Your task to perform on an android device: Open my contact list Image 0: 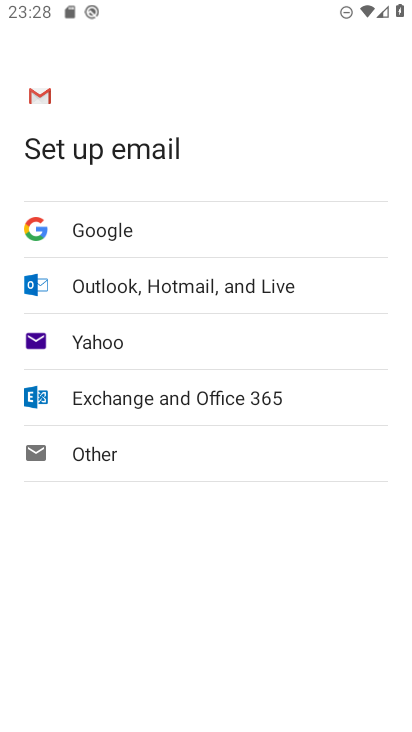
Step 0: press home button
Your task to perform on an android device: Open my contact list Image 1: 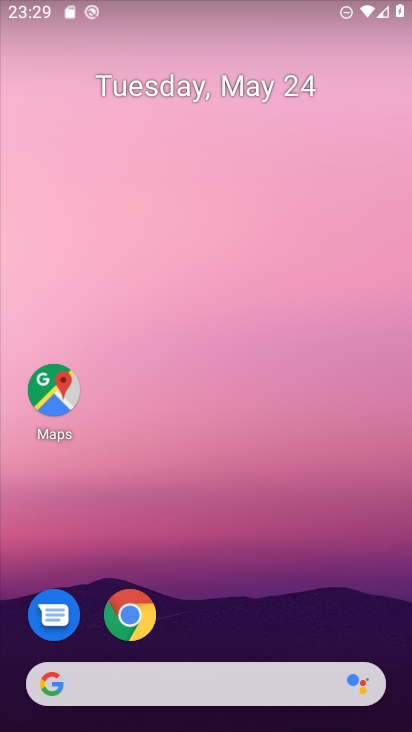
Step 1: drag from (272, 714) to (367, 145)
Your task to perform on an android device: Open my contact list Image 2: 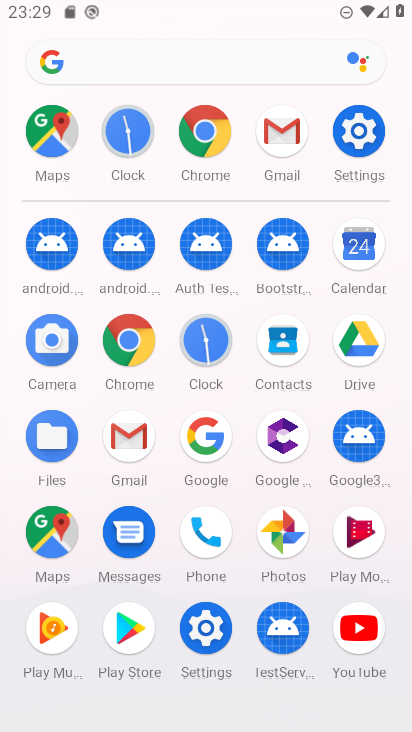
Step 2: click (196, 530)
Your task to perform on an android device: Open my contact list Image 3: 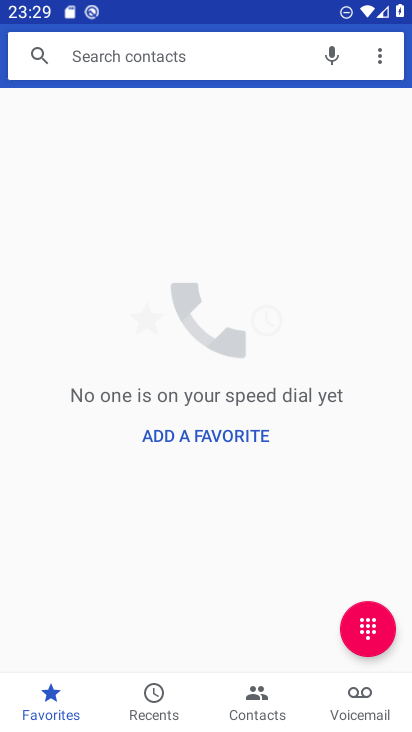
Step 3: click (254, 701)
Your task to perform on an android device: Open my contact list Image 4: 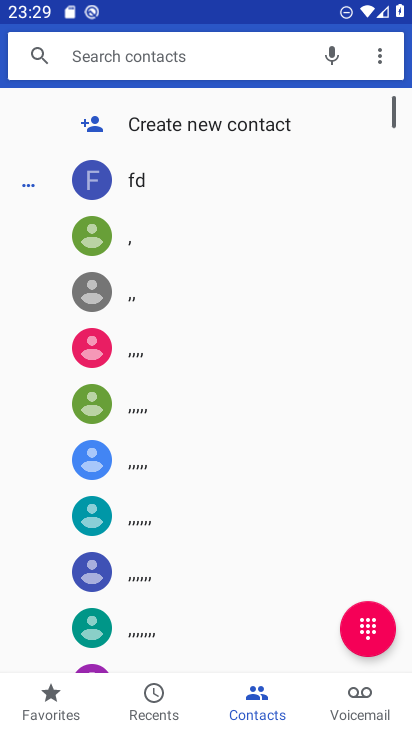
Step 4: click (213, 129)
Your task to perform on an android device: Open my contact list Image 5: 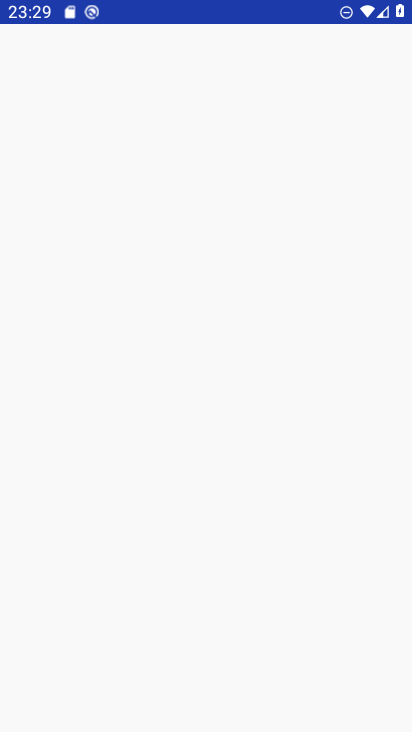
Step 5: click (175, 298)
Your task to perform on an android device: Open my contact list Image 6: 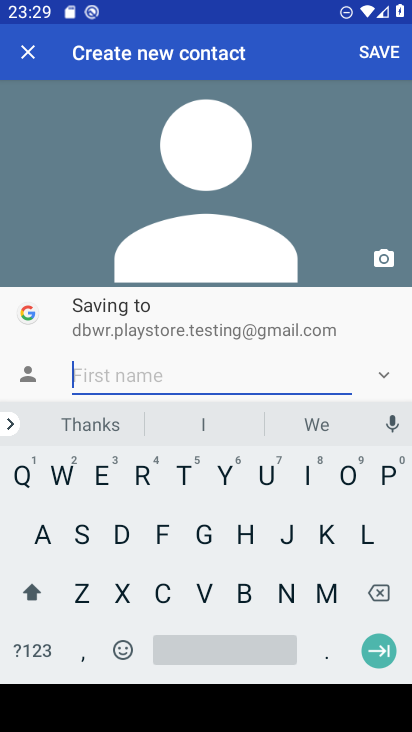
Step 6: click (188, 475)
Your task to perform on an android device: Open my contact list Image 7: 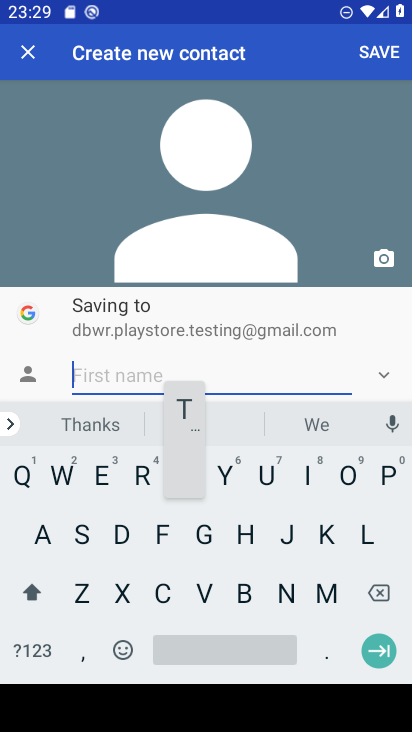
Step 7: drag from (92, 507) to (157, 482)
Your task to perform on an android device: Open my contact list Image 8: 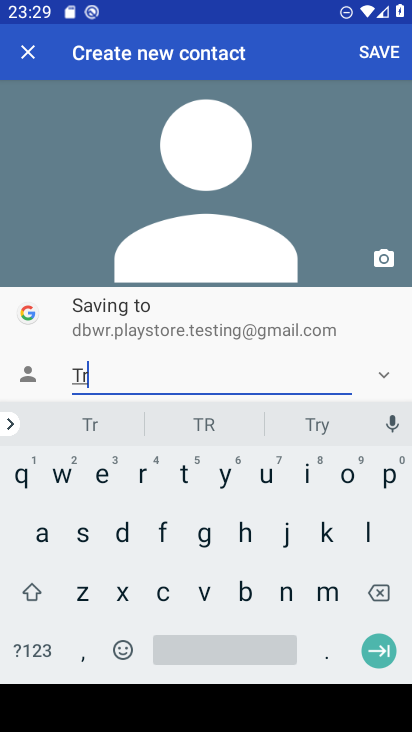
Step 8: click (217, 466)
Your task to perform on an android device: Open my contact list Image 9: 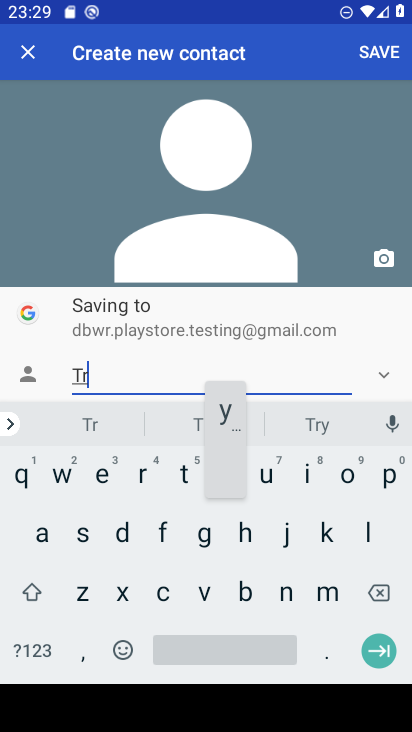
Step 9: click (156, 582)
Your task to perform on an android device: Open my contact list Image 10: 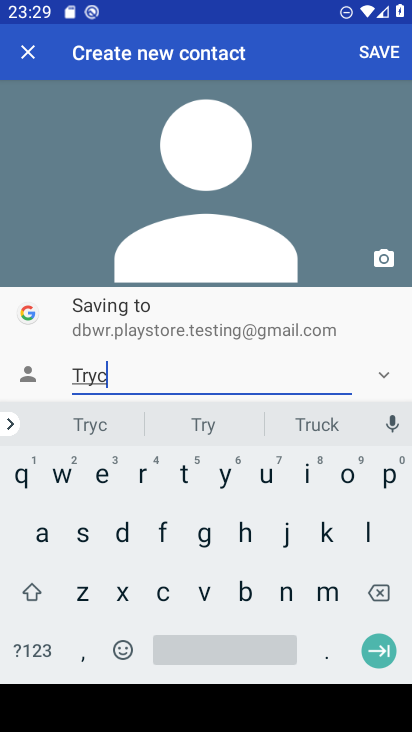
Step 10: drag from (235, 331) to (288, 130)
Your task to perform on an android device: Open my contact list Image 11: 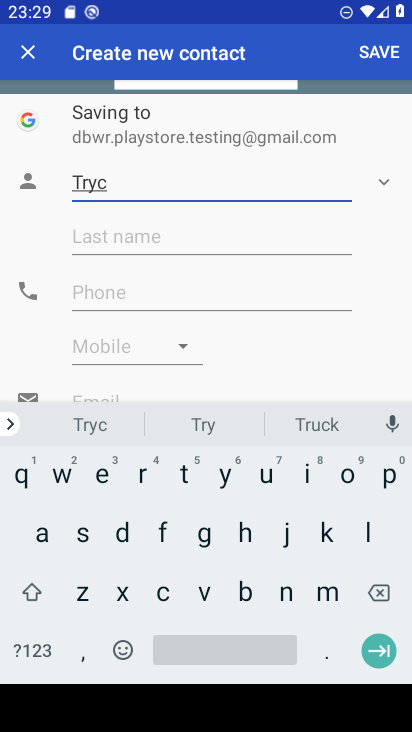
Step 11: click (148, 284)
Your task to perform on an android device: Open my contact list Image 12: 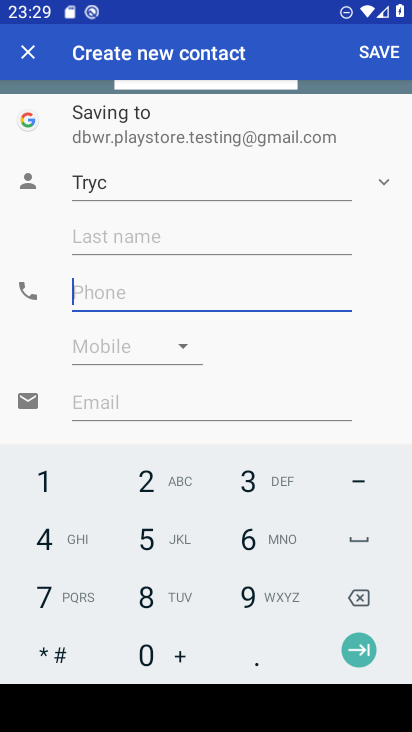
Step 12: click (228, 553)
Your task to perform on an android device: Open my contact list Image 13: 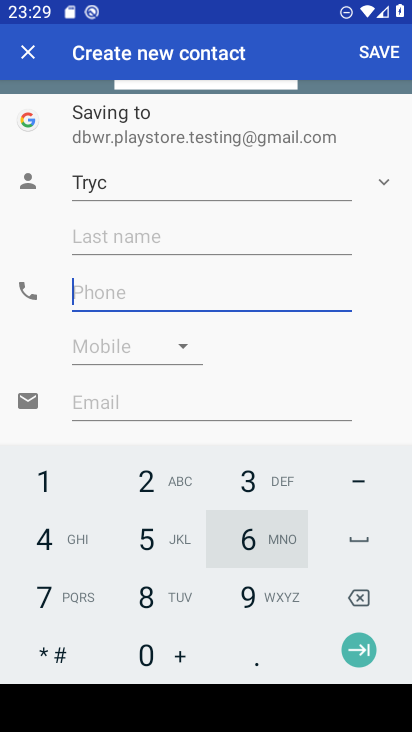
Step 13: click (92, 585)
Your task to perform on an android device: Open my contact list Image 14: 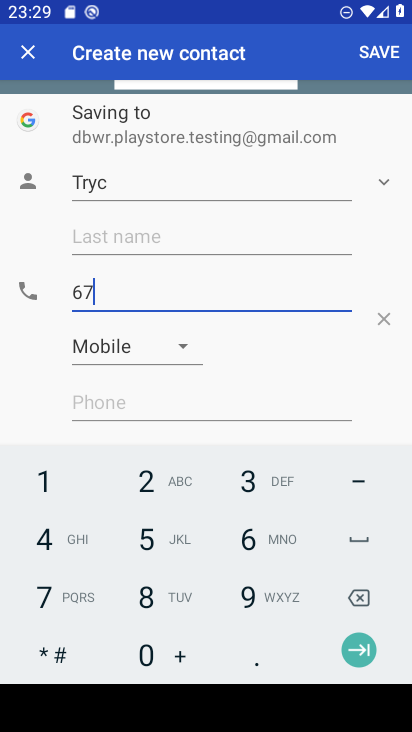
Step 14: click (74, 553)
Your task to perform on an android device: Open my contact list Image 15: 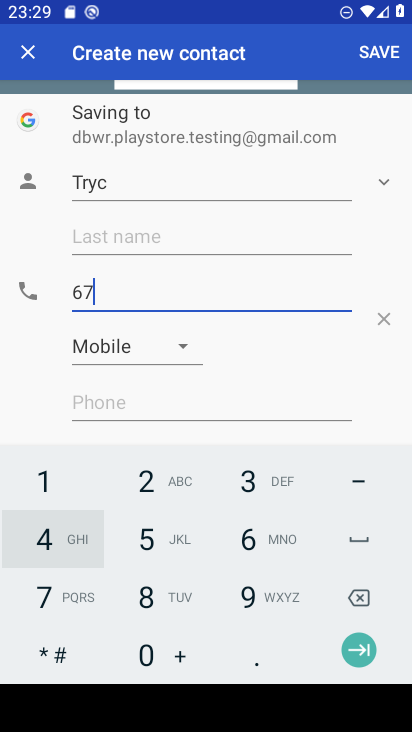
Step 15: click (134, 521)
Your task to perform on an android device: Open my contact list Image 16: 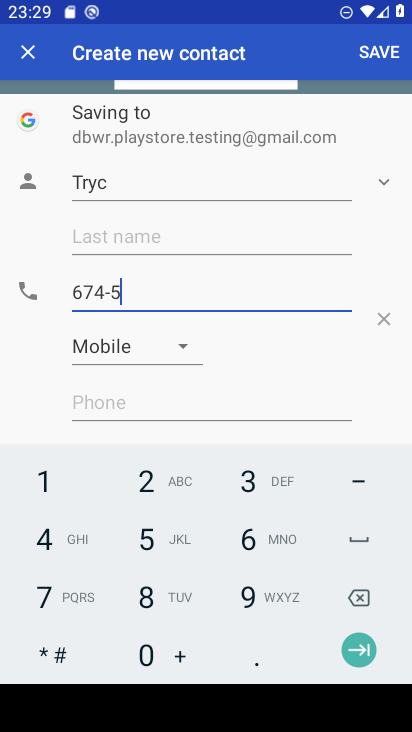
Step 16: click (119, 627)
Your task to perform on an android device: Open my contact list Image 17: 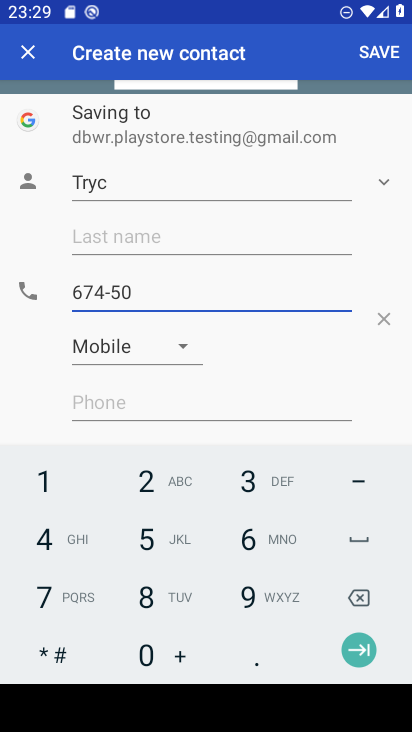
Step 17: click (143, 625)
Your task to perform on an android device: Open my contact list Image 18: 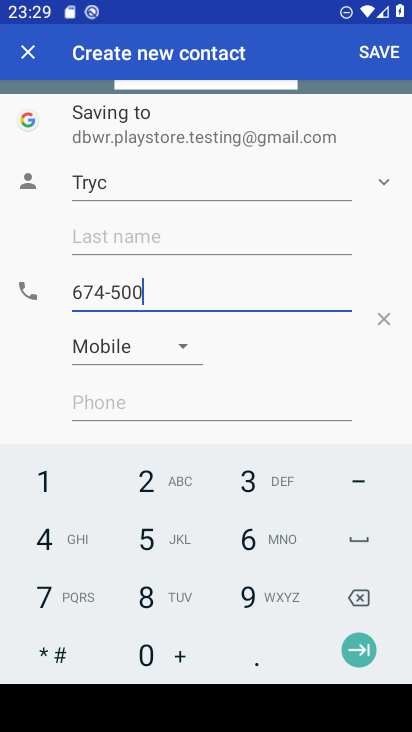
Step 18: click (366, 40)
Your task to perform on an android device: Open my contact list Image 19: 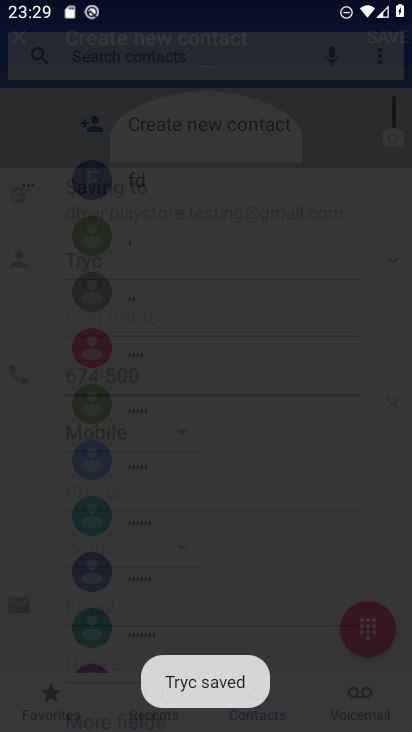
Step 19: task complete